Your task to perform on an android device: Go to Android settings Image 0: 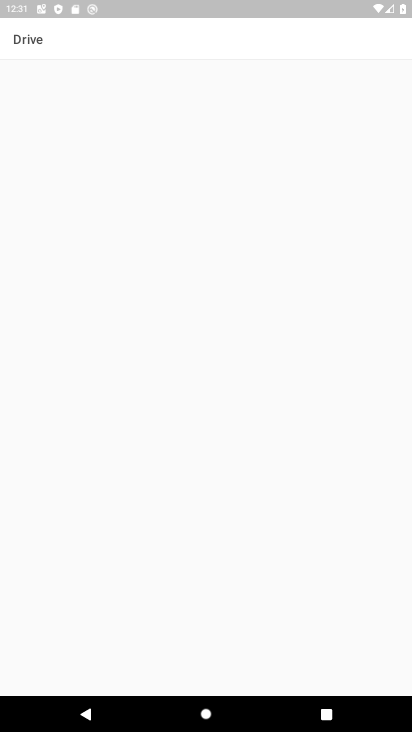
Step 0: press home button
Your task to perform on an android device: Go to Android settings Image 1: 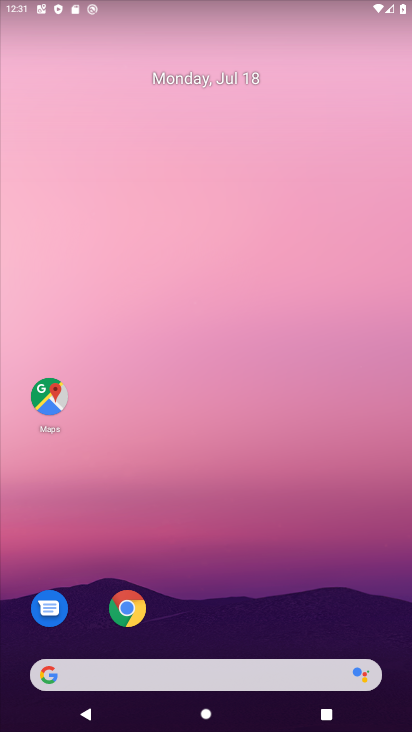
Step 1: drag from (276, 621) to (208, 160)
Your task to perform on an android device: Go to Android settings Image 2: 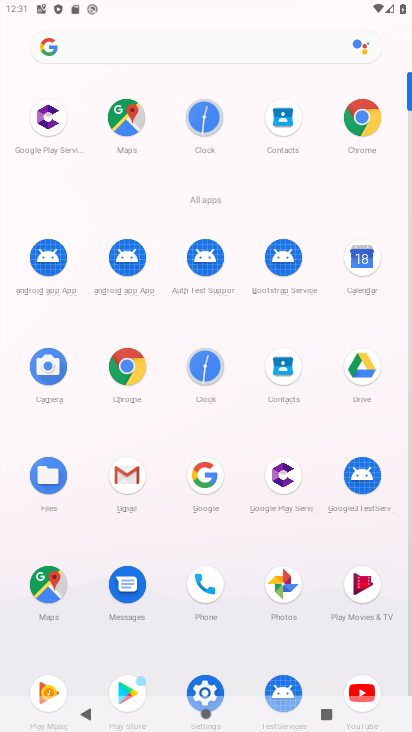
Step 2: click (200, 685)
Your task to perform on an android device: Go to Android settings Image 3: 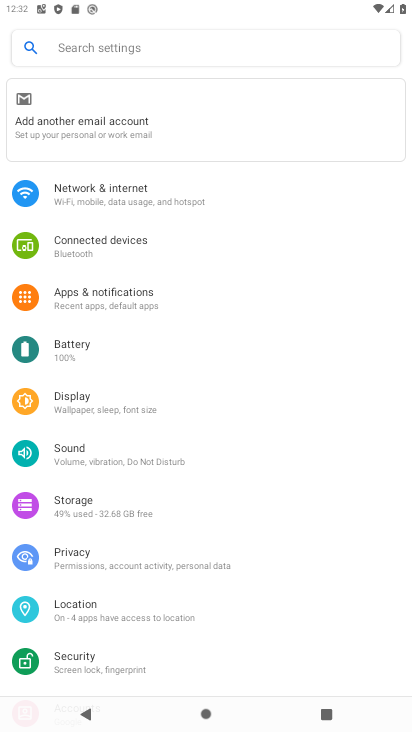
Step 3: task complete